Your task to perform on an android device: What's the weather going to be tomorrow? Image 0: 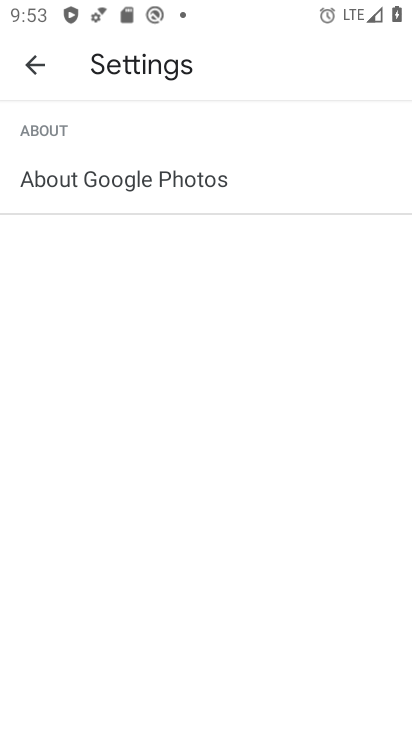
Step 0: press home button
Your task to perform on an android device: What's the weather going to be tomorrow? Image 1: 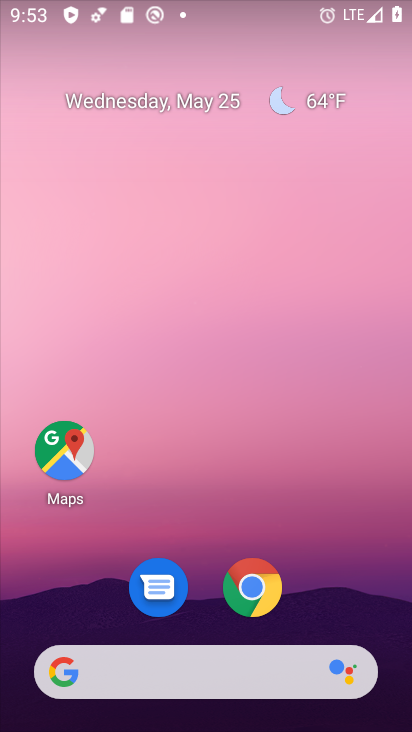
Step 1: click (148, 672)
Your task to perform on an android device: What's the weather going to be tomorrow? Image 2: 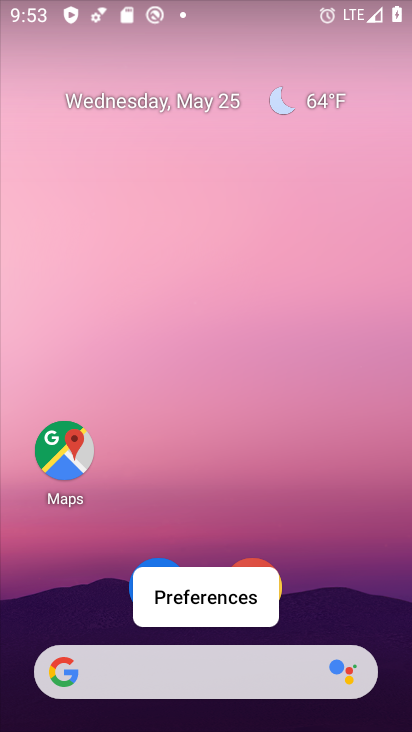
Step 2: click (171, 682)
Your task to perform on an android device: What's the weather going to be tomorrow? Image 3: 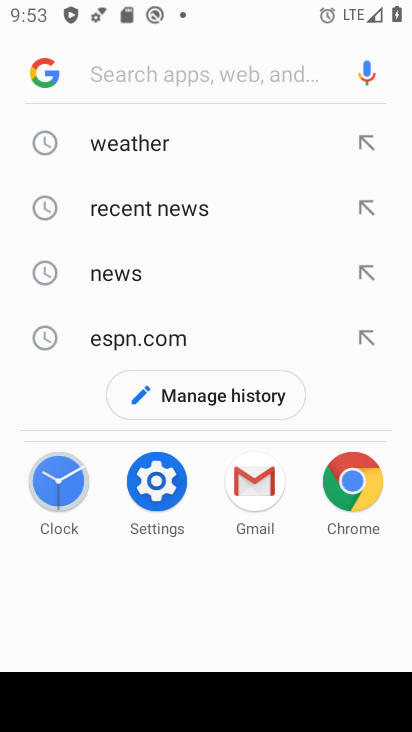
Step 3: click (173, 138)
Your task to perform on an android device: What's the weather going to be tomorrow? Image 4: 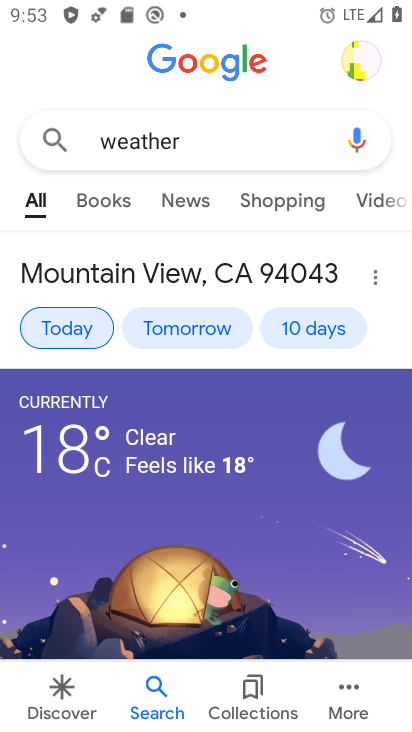
Step 4: drag from (157, 580) to (317, 155)
Your task to perform on an android device: What's the weather going to be tomorrow? Image 5: 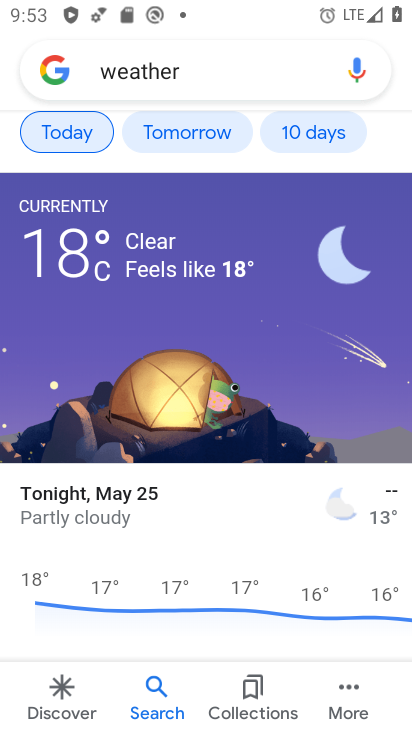
Step 5: drag from (197, 569) to (364, 45)
Your task to perform on an android device: What's the weather going to be tomorrow? Image 6: 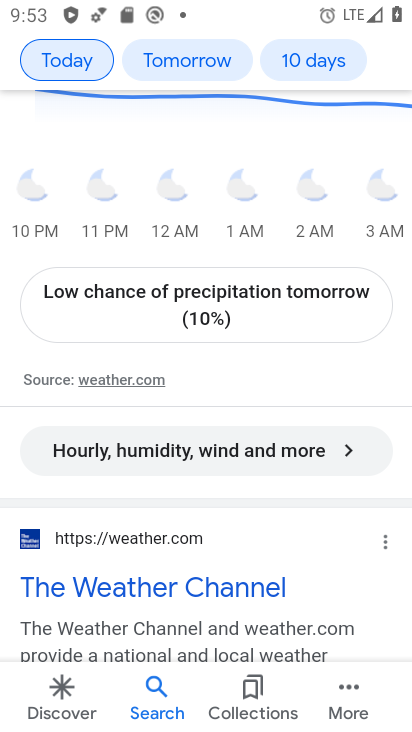
Step 6: drag from (194, 566) to (270, 351)
Your task to perform on an android device: What's the weather going to be tomorrow? Image 7: 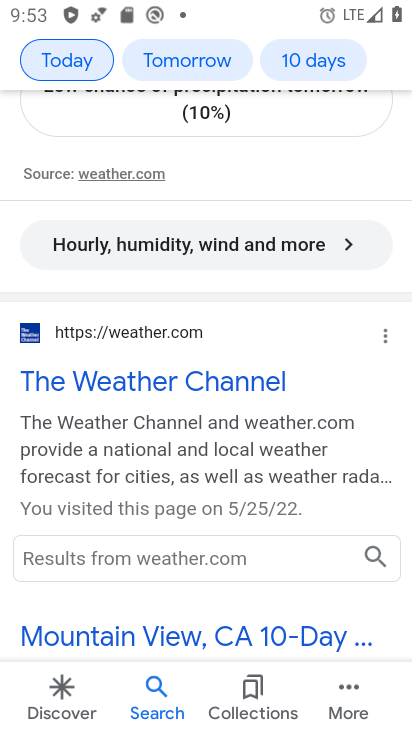
Step 7: click (220, 396)
Your task to perform on an android device: What's the weather going to be tomorrow? Image 8: 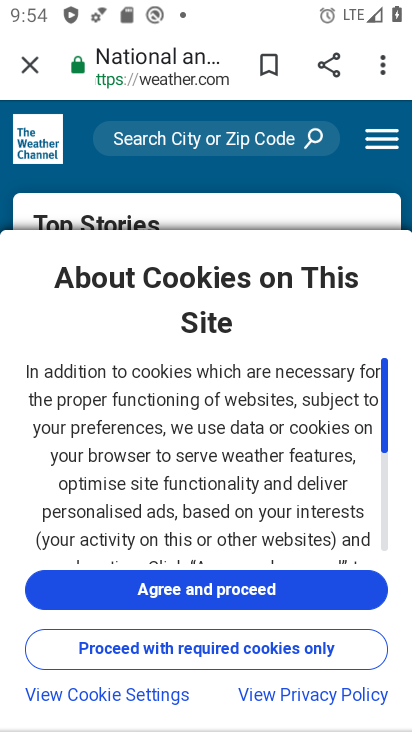
Step 8: click (230, 600)
Your task to perform on an android device: What's the weather going to be tomorrow? Image 9: 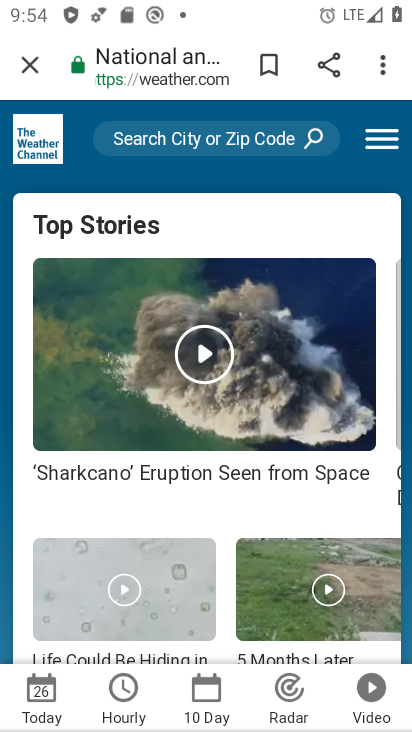
Step 9: drag from (230, 600) to (296, 349)
Your task to perform on an android device: What's the weather going to be tomorrow? Image 10: 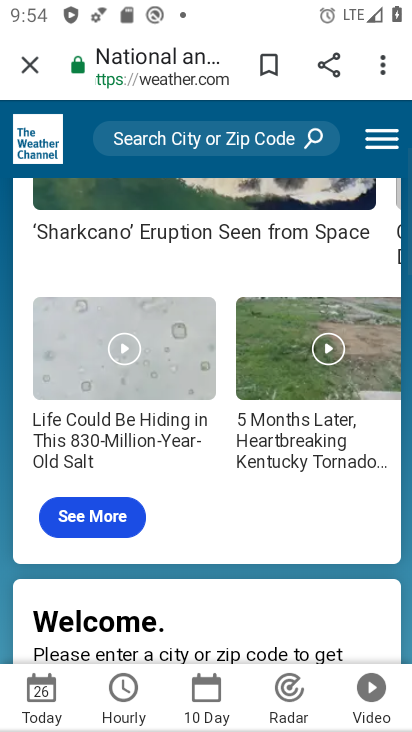
Step 10: click (213, 708)
Your task to perform on an android device: What's the weather going to be tomorrow? Image 11: 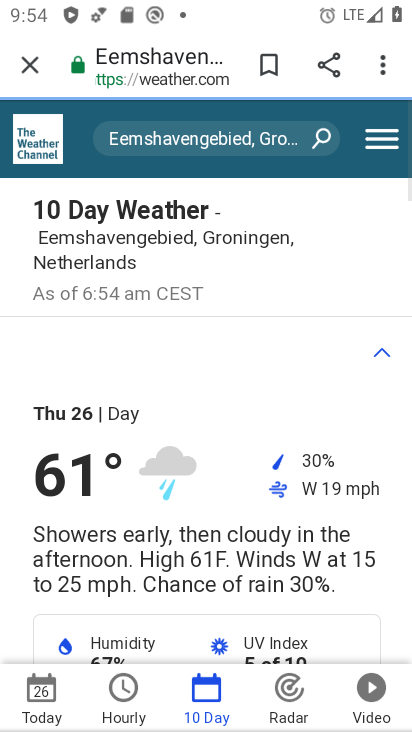
Step 11: click (214, 707)
Your task to perform on an android device: What's the weather going to be tomorrow? Image 12: 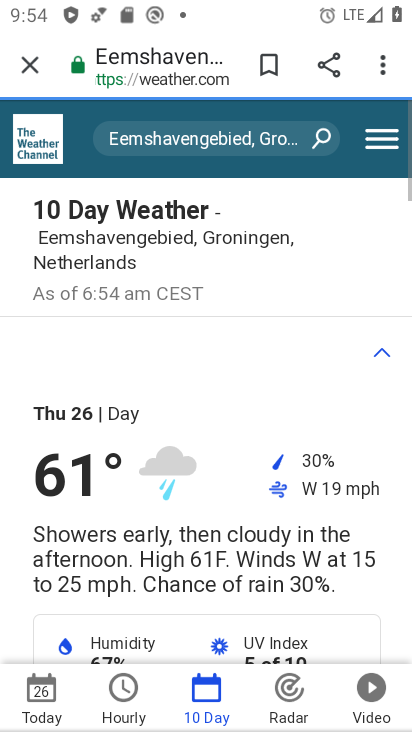
Step 12: task complete